Your task to perform on an android device: toggle priority inbox in the gmail app Image 0: 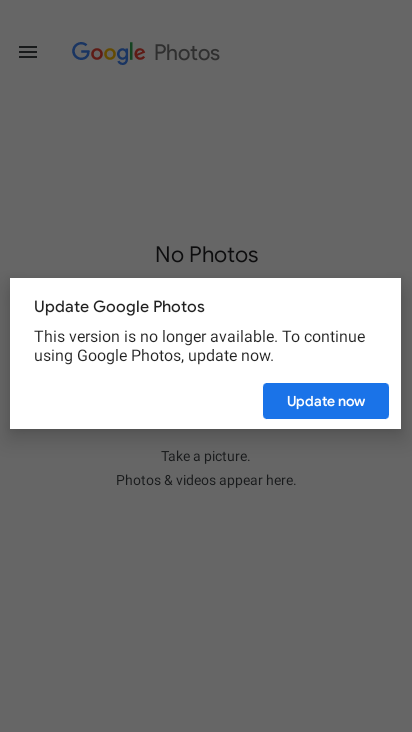
Step 0: press home button
Your task to perform on an android device: toggle priority inbox in the gmail app Image 1: 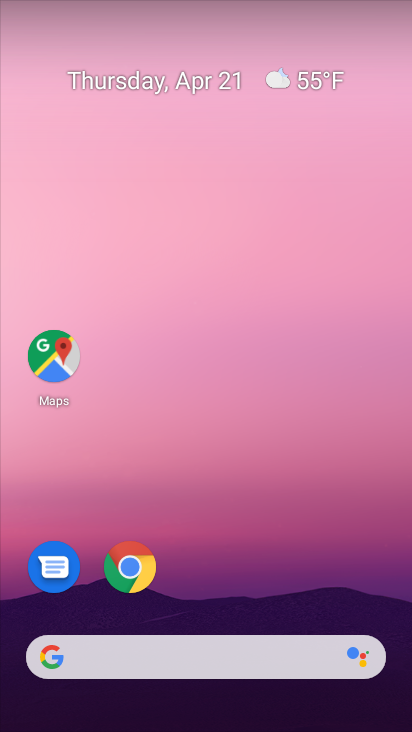
Step 1: drag from (371, 580) to (307, 31)
Your task to perform on an android device: toggle priority inbox in the gmail app Image 2: 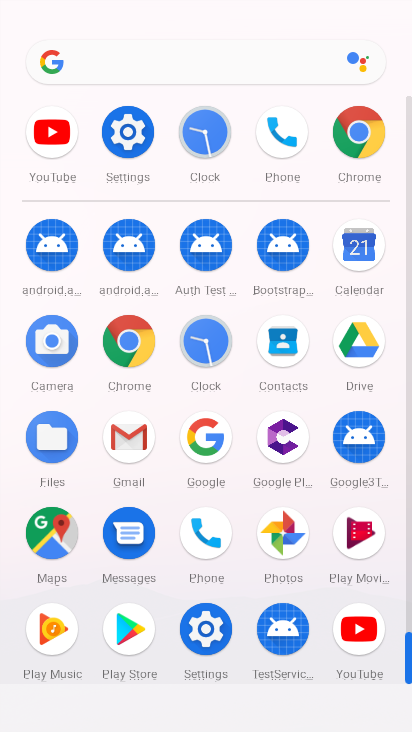
Step 2: click (127, 434)
Your task to perform on an android device: toggle priority inbox in the gmail app Image 3: 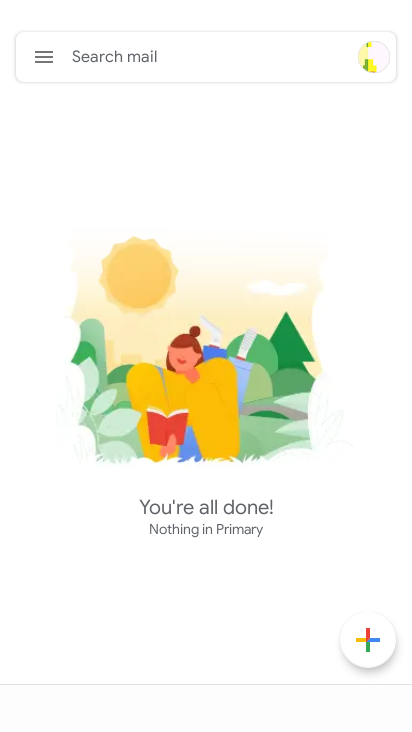
Step 3: click (47, 60)
Your task to perform on an android device: toggle priority inbox in the gmail app Image 4: 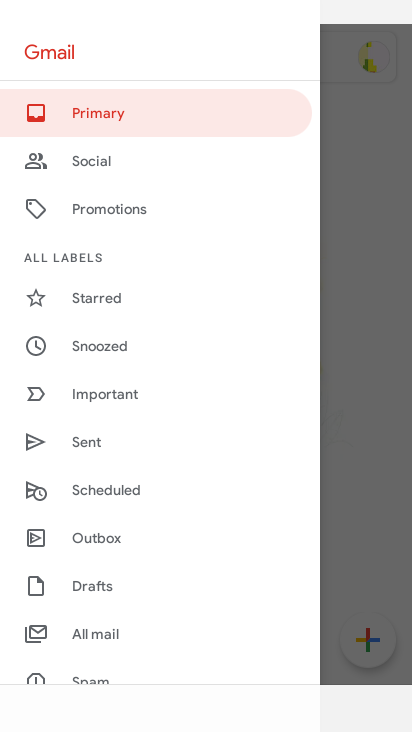
Step 4: drag from (175, 543) to (204, 363)
Your task to perform on an android device: toggle priority inbox in the gmail app Image 5: 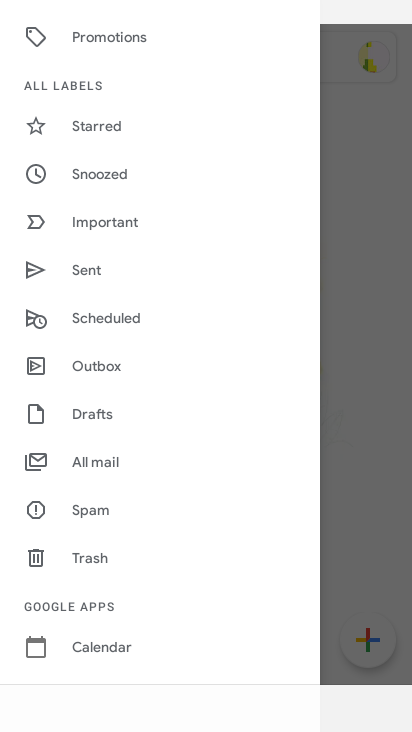
Step 5: drag from (141, 554) to (225, 252)
Your task to perform on an android device: toggle priority inbox in the gmail app Image 6: 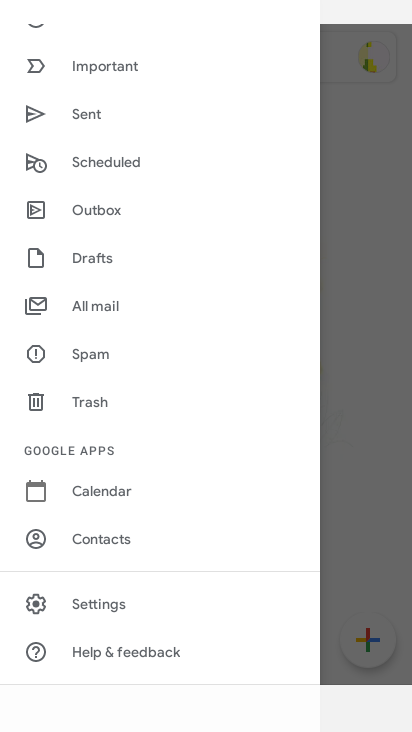
Step 6: click (91, 597)
Your task to perform on an android device: toggle priority inbox in the gmail app Image 7: 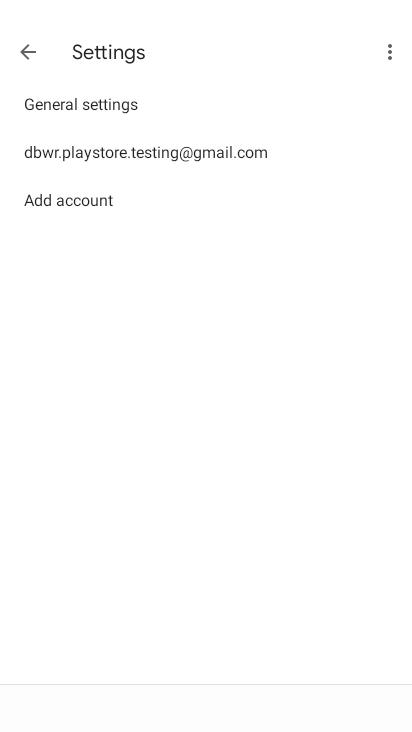
Step 7: click (117, 150)
Your task to perform on an android device: toggle priority inbox in the gmail app Image 8: 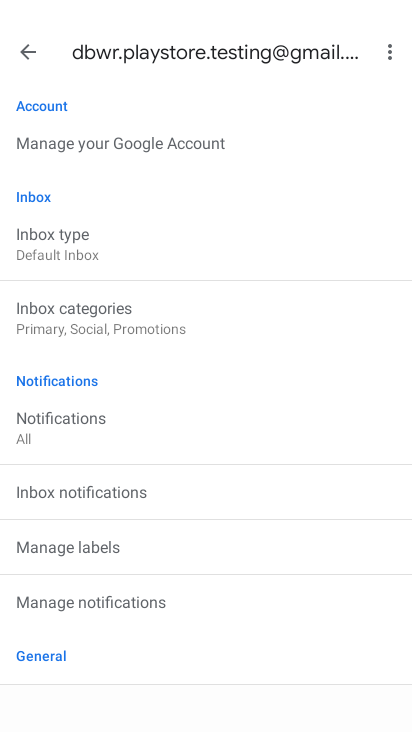
Step 8: click (34, 225)
Your task to perform on an android device: toggle priority inbox in the gmail app Image 9: 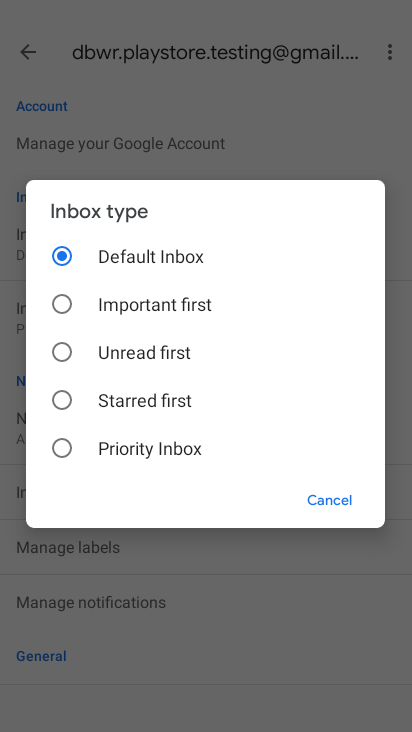
Step 9: click (59, 444)
Your task to perform on an android device: toggle priority inbox in the gmail app Image 10: 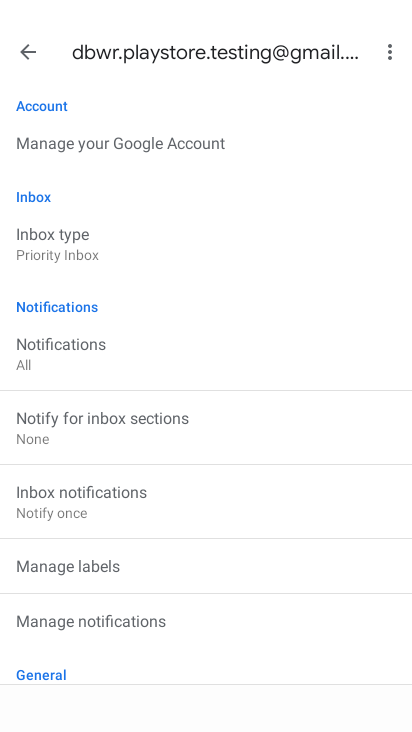
Step 10: task complete